Your task to perform on an android device: turn off picture-in-picture Image 0: 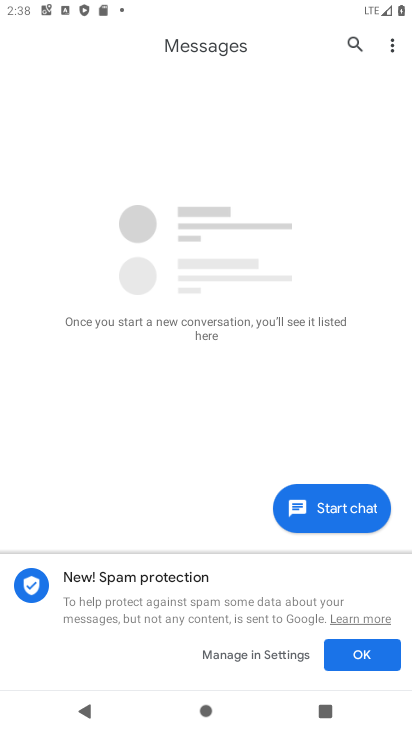
Step 0: press home button
Your task to perform on an android device: turn off picture-in-picture Image 1: 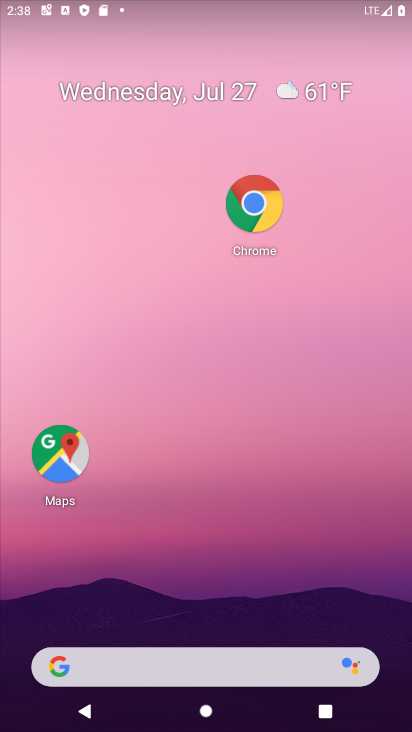
Step 1: click (236, 225)
Your task to perform on an android device: turn off picture-in-picture Image 2: 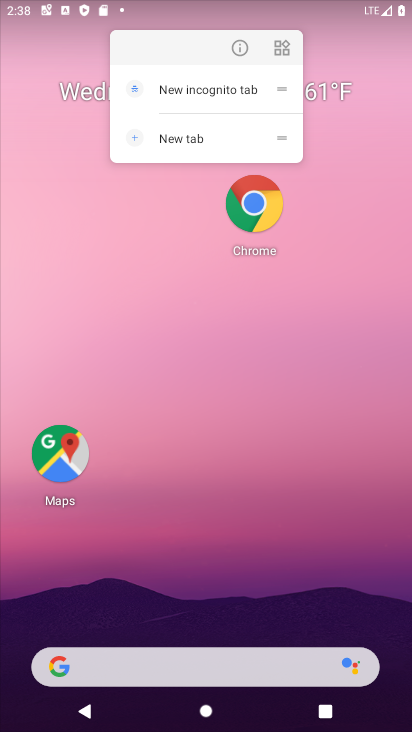
Step 2: click (246, 41)
Your task to perform on an android device: turn off picture-in-picture Image 3: 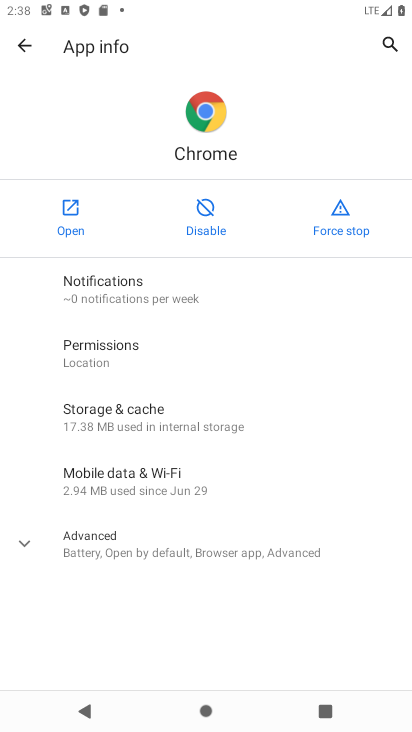
Step 3: click (128, 558)
Your task to perform on an android device: turn off picture-in-picture Image 4: 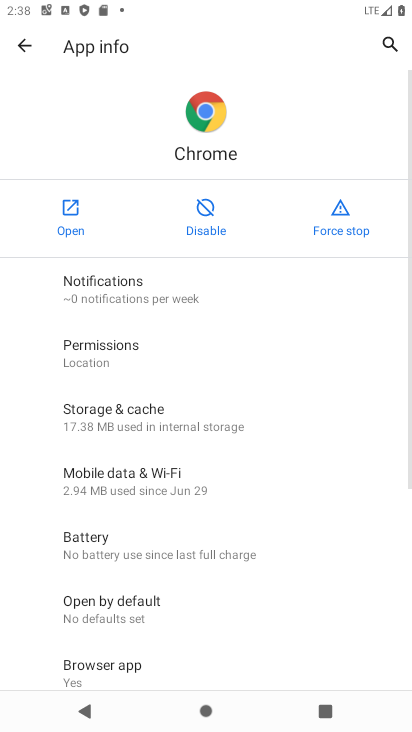
Step 4: drag from (167, 655) to (217, 375)
Your task to perform on an android device: turn off picture-in-picture Image 5: 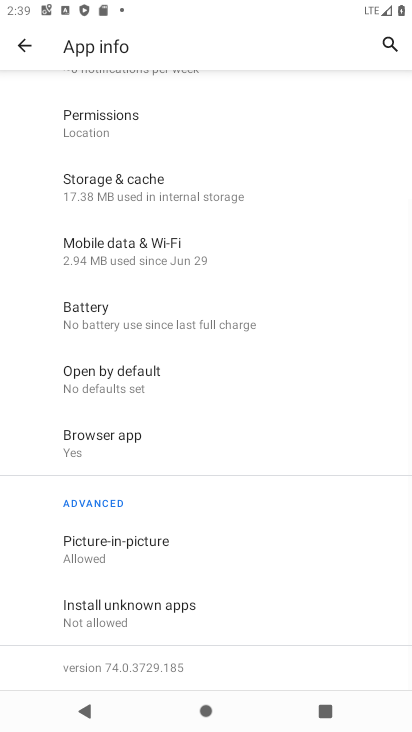
Step 5: click (172, 552)
Your task to perform on an android device: turn off picture-in-picture Image 6: 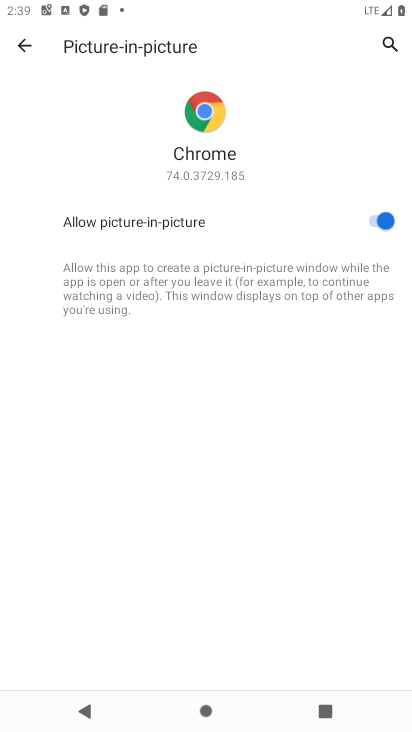
Step 6: click (364, 223)
Your task to perform on an android device: turn off picture-in-picture Image 7: 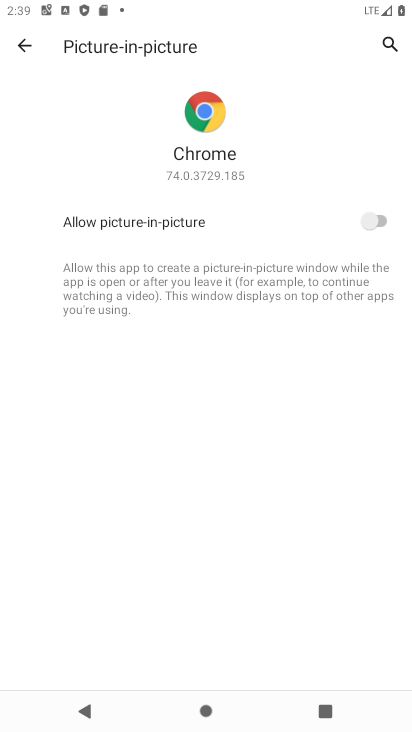
Step 7: task complete